Your task to perform on an android device: open chrome privacy settings Image 0: 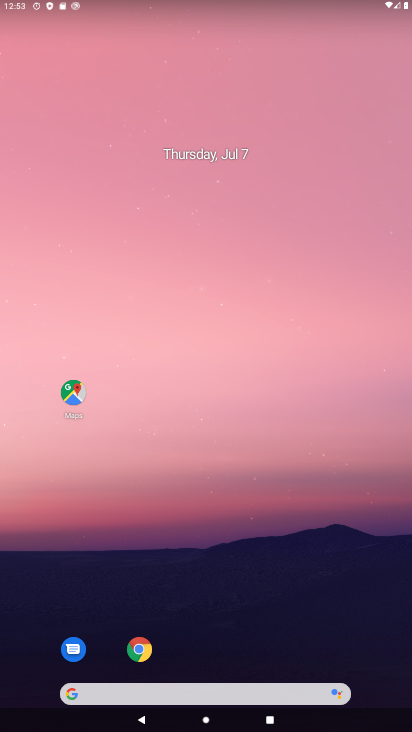
Step 0: click (147, 648)
Your task to perform on an android device: open chrome privacy settings Image 1: 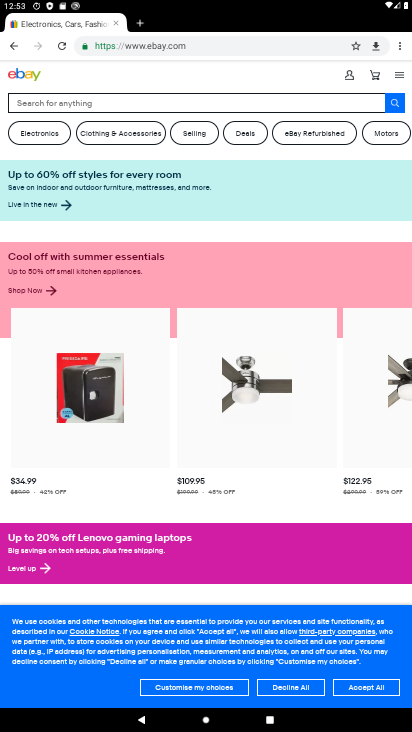
Step 1: click (399, 45)
Your task to perform on an android device: open chrome privacy settings Image 2: 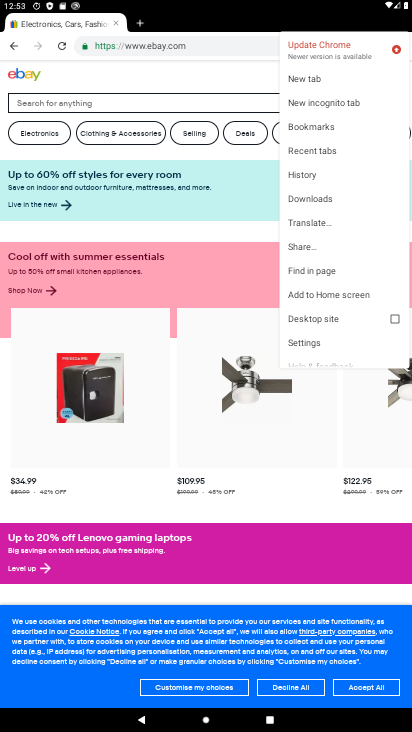
Step 2: click (304, 343)
Your task to perform on an android device: open chrome privacy settings Image 3: 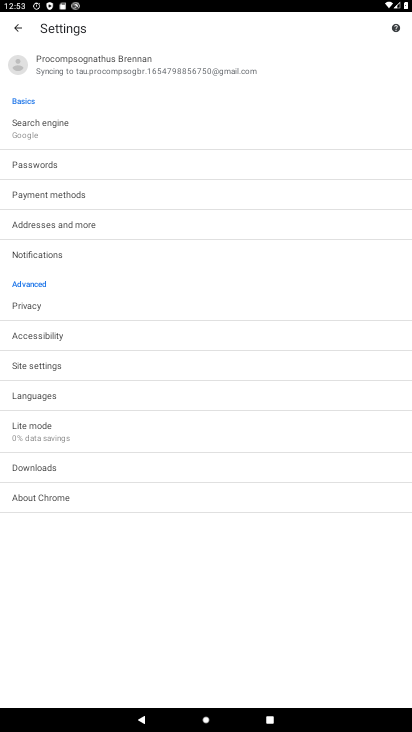
Step 3: click (26, 301)
Your task to perform on an android device: open chrome privacy settings Image 4: 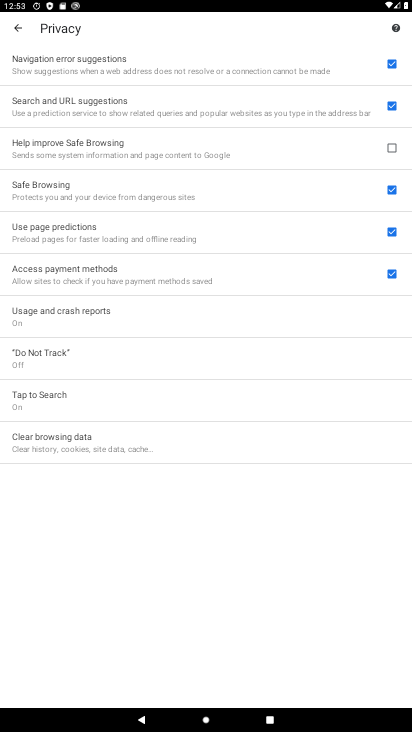
Step 4: task complete